Your task to perform on an android device: Open Reddit.com Image 0: 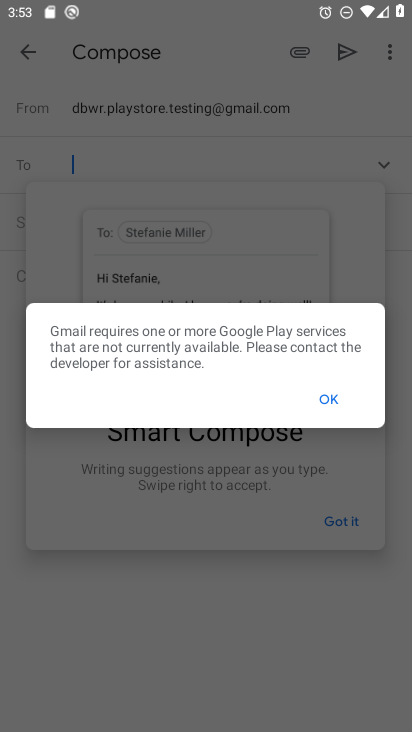
Step 0: press home button
Your task to perform on an android device: Open Reddit.com Image 1: 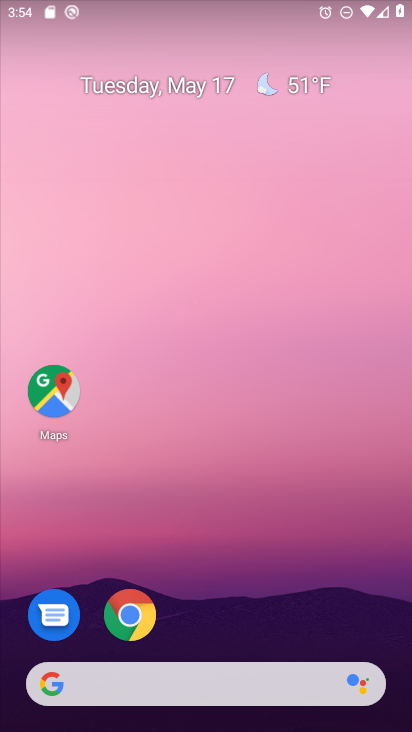
Step 1: drag from (222, 643) to (215, 80)
Your task to perform on an android device: Open Reddit.com Image 2: 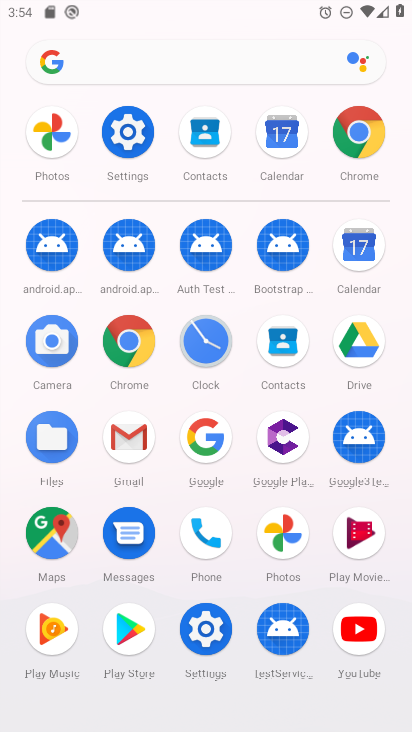
Step 2: click (356, 123)
Your task to perform on an android device: Open Reddit.com Image 3: 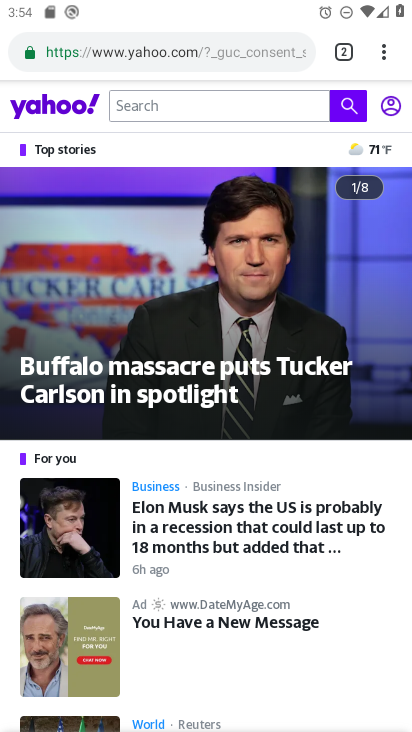
Step 3: click (341, 49)
Your task to perform on an android device: Open Reddit.com Image 4: 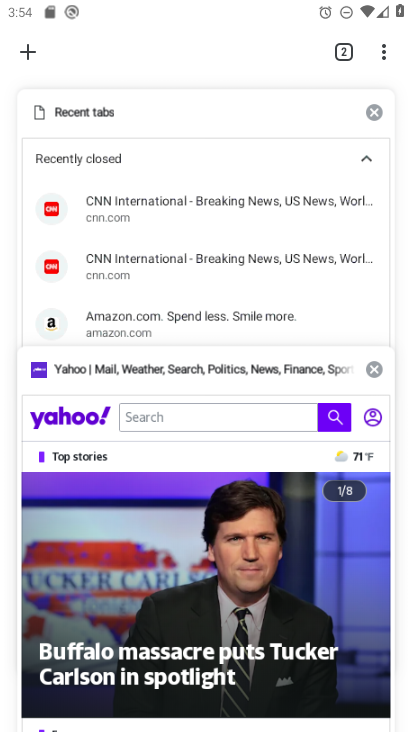
Step 4: click (375, 108)
Your task to perform on an android device: Open Reddit.com Image 5: 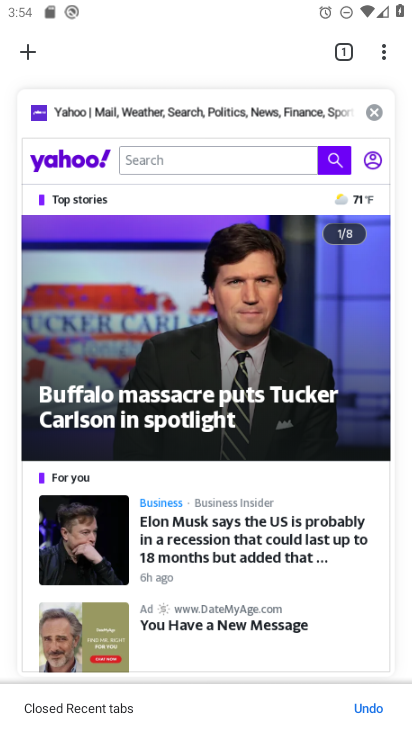
Step 5: click (375, 108)
Your task to perform on an android device: Open Reddit.com Image 6: 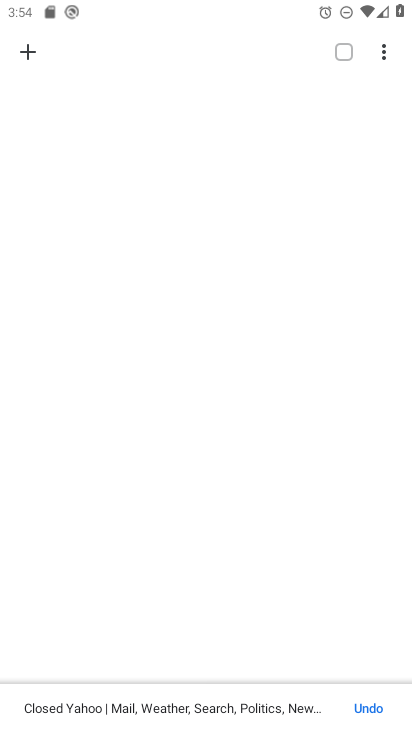
Step 6: click (24, 56)
Your task to perform on an android device: Open Reddit.com Image 7: 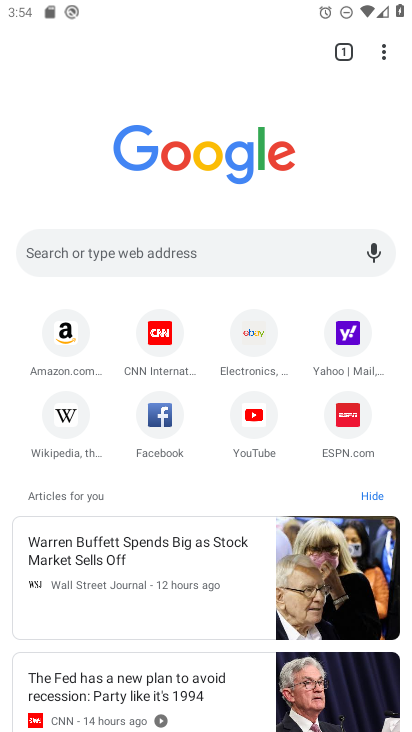
Step 7: click (151, 248)
Your task to perform on an android device: Open Reddit.com Image 8: 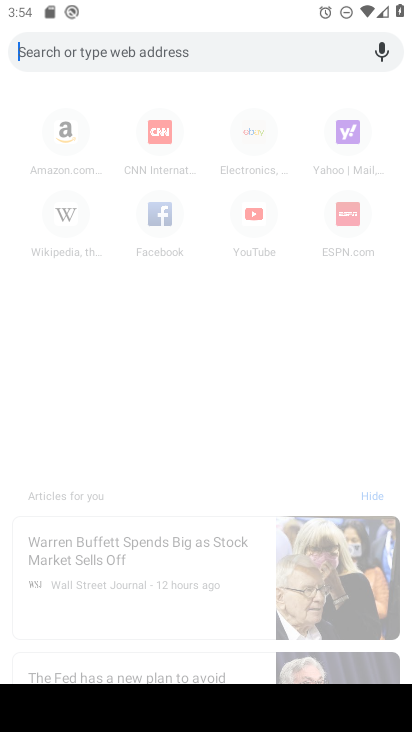
Step 8: type "reddit"
Your task to perform on an android device: Open Reddit.com Image 9: 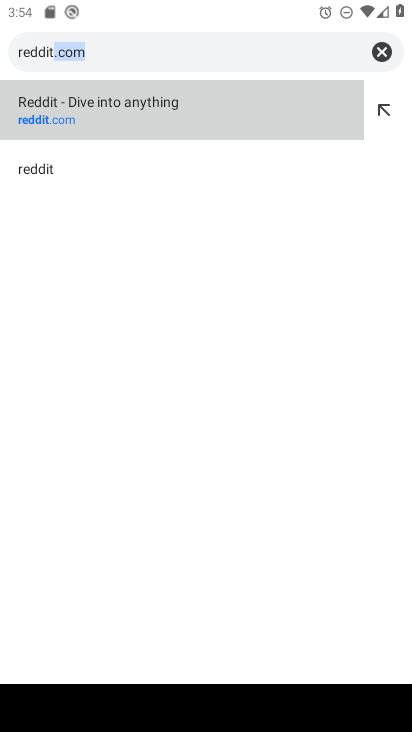
Step 9: click (99, 124)
Your task to perform on an android device: Open Reddit.com Image 10: 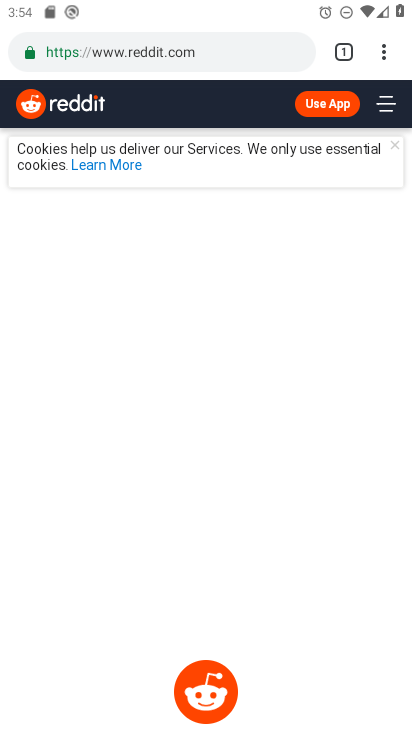
Step 10: task complete